Your task to perform on an android device: Open the web browser Image 0: 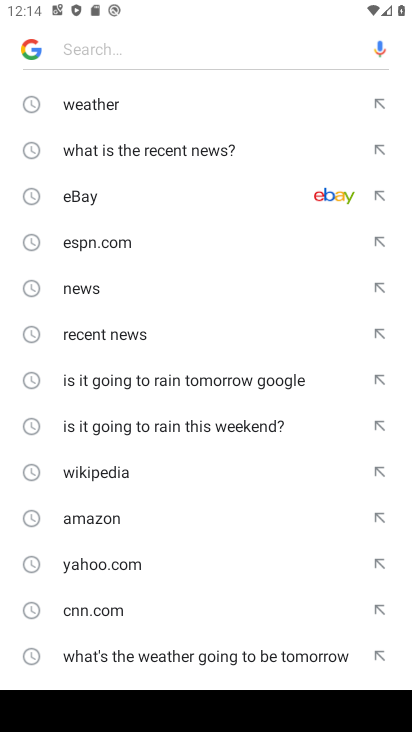
Step 0: press home button
Your task to perform on an android device: Open the web browser Image 1: 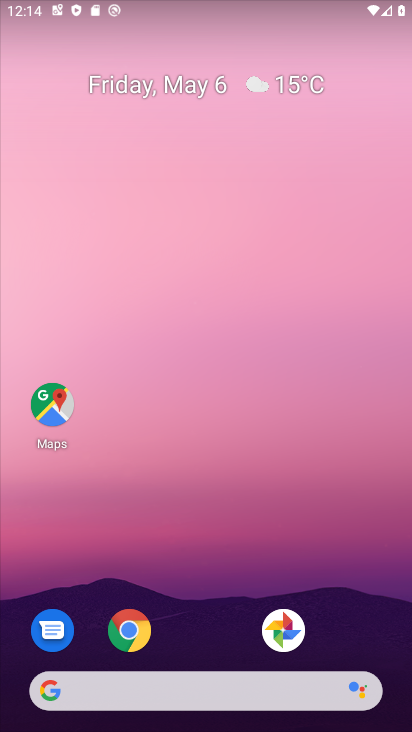
Step 1: click (147, 634)
Your task to perform on an android device: Open the web browser Image 2: 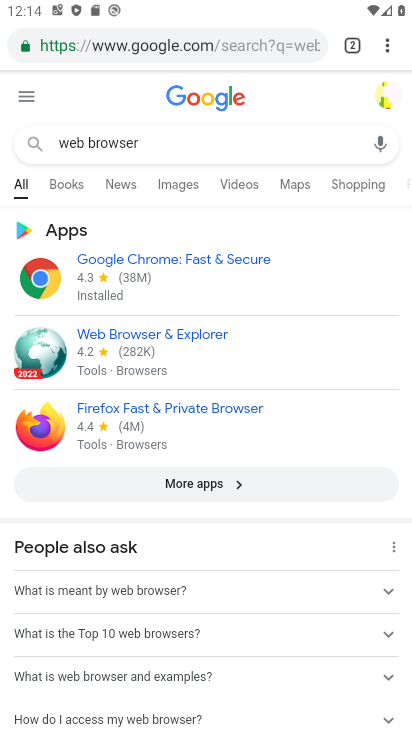
Step 2: task complete